Your task to perform on an android device: turn on sleep mode Image 0: 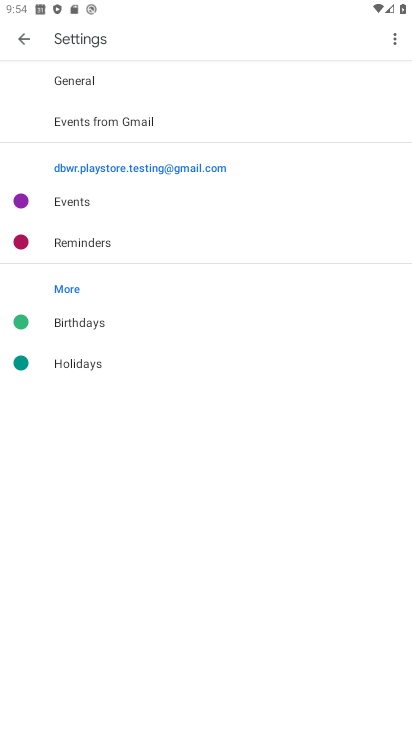
Step 0: drag from (190, 661) to (194, 137)
Your task to perform on an android device: turn on sleep mode Image 1: 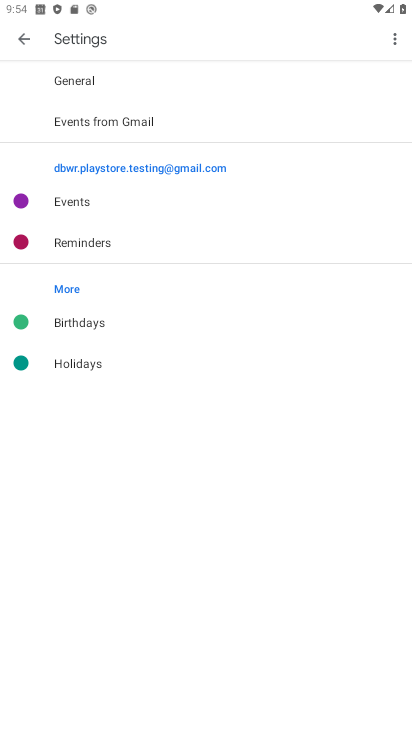
Step 1: press home button
Your task to perform on an android device: turn on sleep mode Image 2: 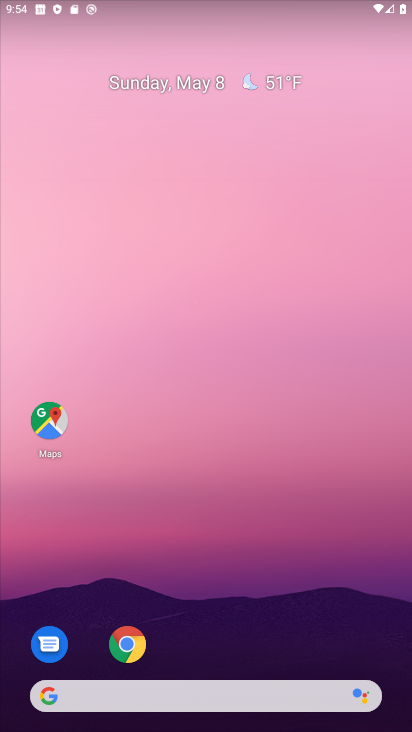
Step 2: drag from (215, 635) to (222, 19)
Your task to perform on an android device: turn on sleep mode Image 3: 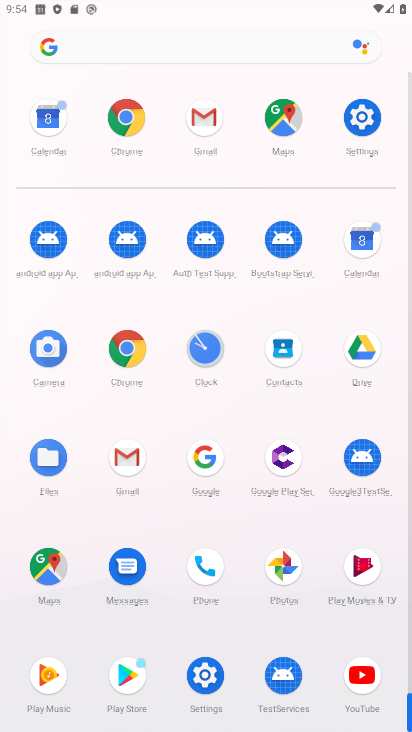
Step 3: click (367, 122)
Your task to perform on an android device: turn on sleep mode Image 4: 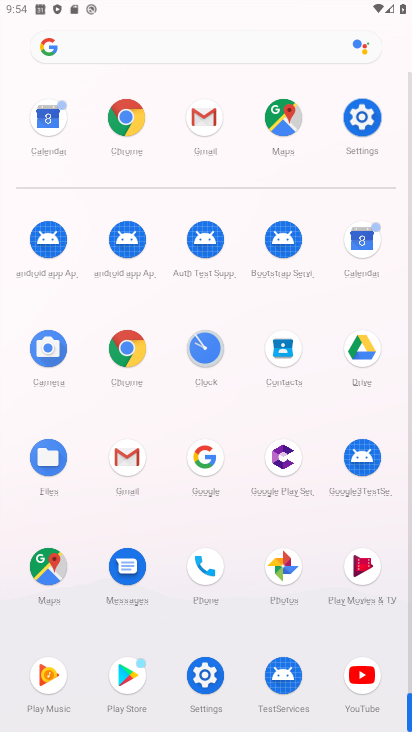
Step 4: click (367, 122)
Your task to perform on an android device: turn on sleep mode Image 5: 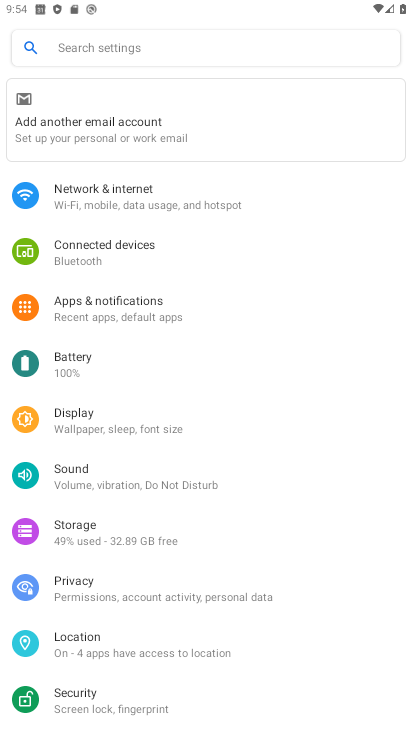
Step 5: click (109, 423)
Your task to perform on an android device: turn on sleep mode Image 6: 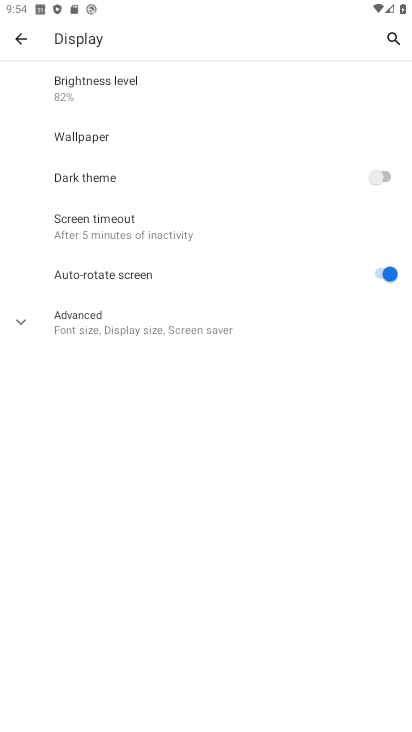
Step 6: click (172, 232)
Your task to perform on an android device: turn on sleep mode Image 7: 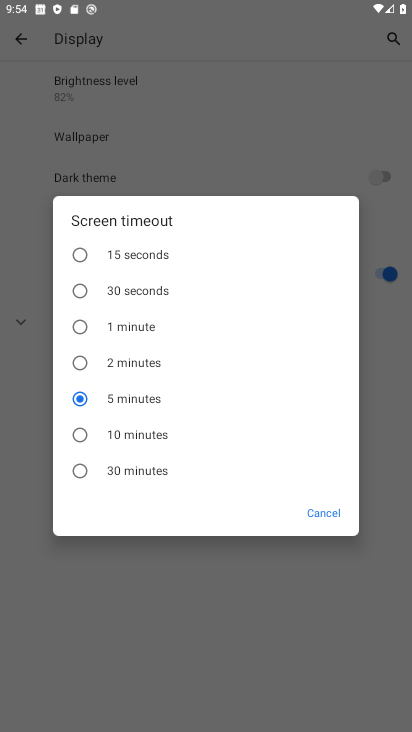
Step 7: task complete